Your task to perform on an android device: turn off smart reply in the gmail app Image 0: 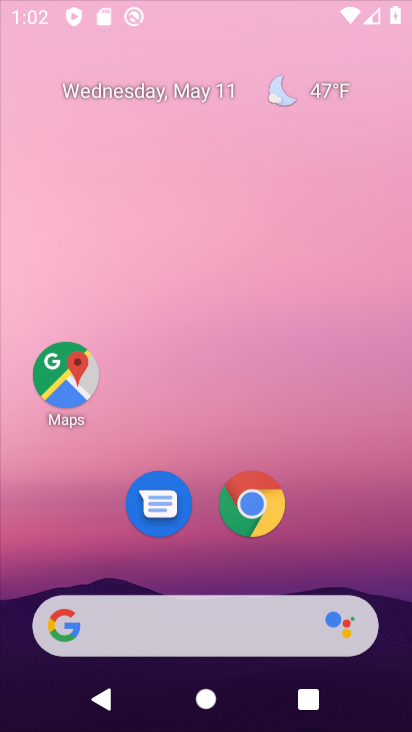
Step 0: click (250, 509)
Your task to perform on an android device: turn off smart reply in the gmail app Image 1: 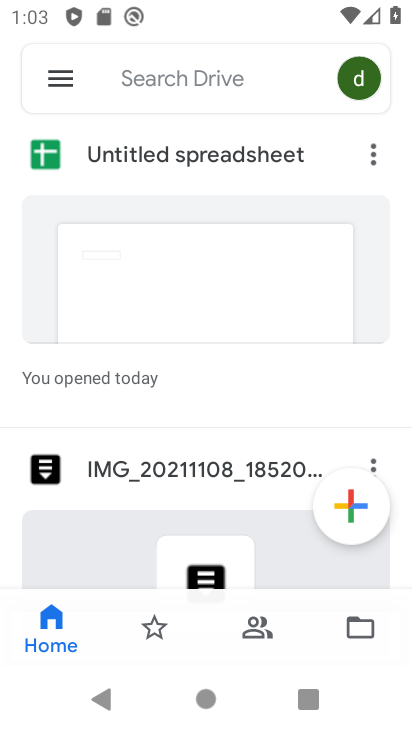
Step 1: press home button
Your task to perform on an android device: turn off smart reply in the gmail app Image 2: 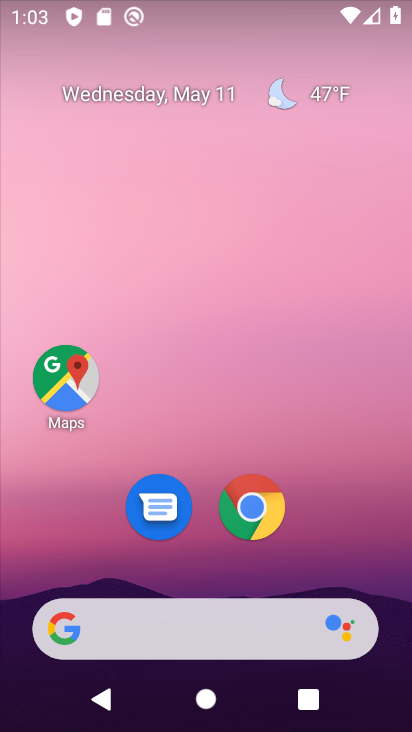
Step 2: drag from (327, 529) to (155, 15)
Your task to perform on an android device: turn off smart reply in the gmail app Image 3: 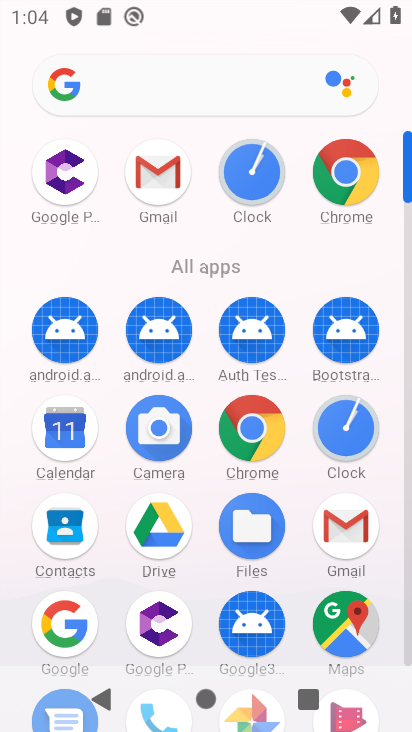
Step 3: click (153, 174)
Your task to perform on an android device: turn off smart reply in the gmail app Image 4: 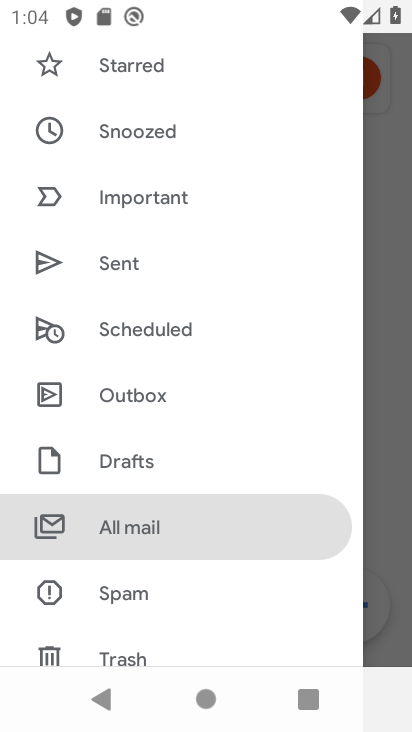
Step 4: drag from (192, 533) to (138, 255)
Your task to perform on an android device: turn off smart reply in the gmail app Image 5: 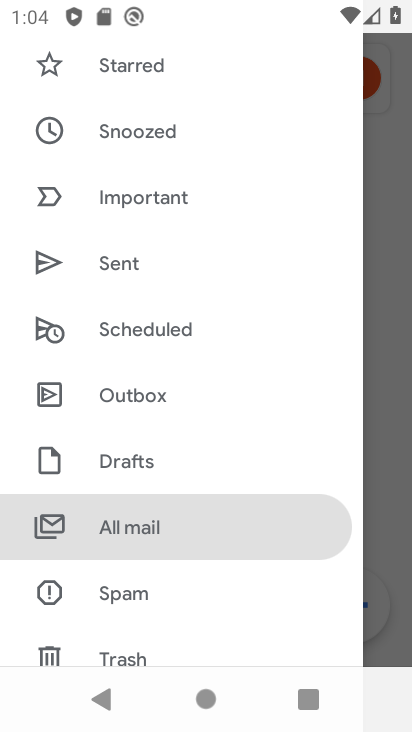
Step 5: drag from (203, 578) to (203, 286)
Your task to perform on an android device: turn off smart reply in the gmail app Image 6: 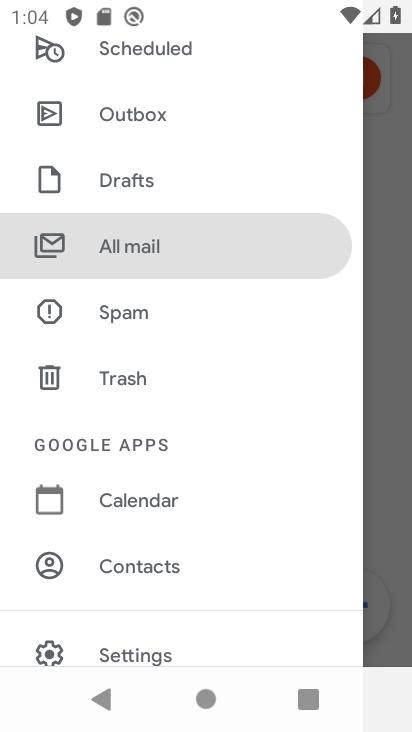
Step 6: drag from (200, 573) to (164, 368)
Your task to perform on an android device: turn off smart reply in the gmail app Image 7: 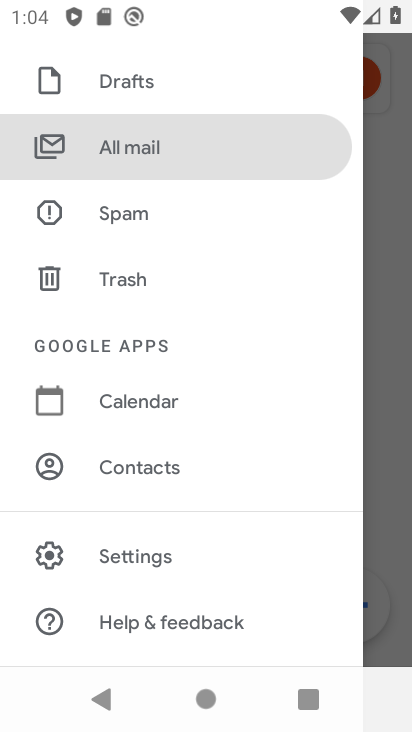
Step 7: click (117, 550)
Your task to perform on an android device: turn off smart reply in the gmail app Image 8: 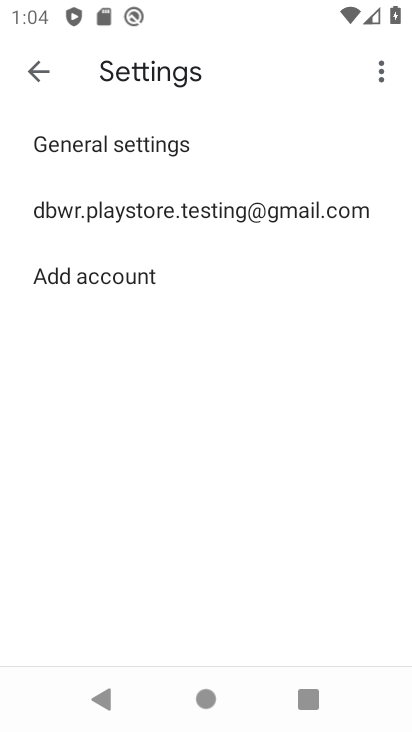
Step 8: click (119, 146)
Your task to perform on an android device: turn off smart reply in the gmail app Image 9: 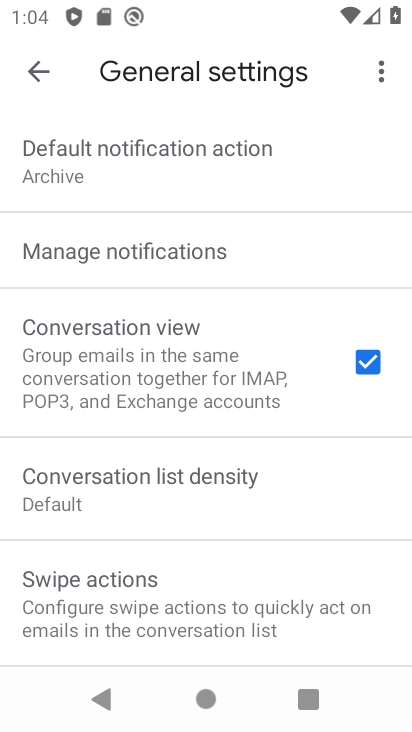
Step 9: drag from (255, 505) to (225, 208)
Your task to perform on an android device: turn off smart reply in the gmail app Image 10: 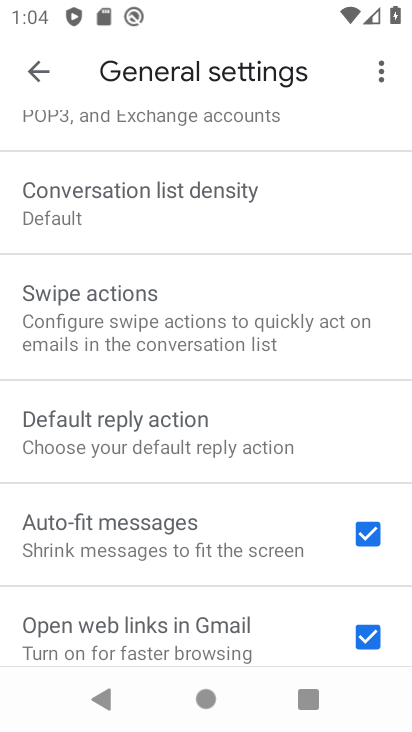
Step 10: drag from (271, 519) to (214, 198)
Your task to perform on an android device: turn off smart reply in the gmail app Image 11: 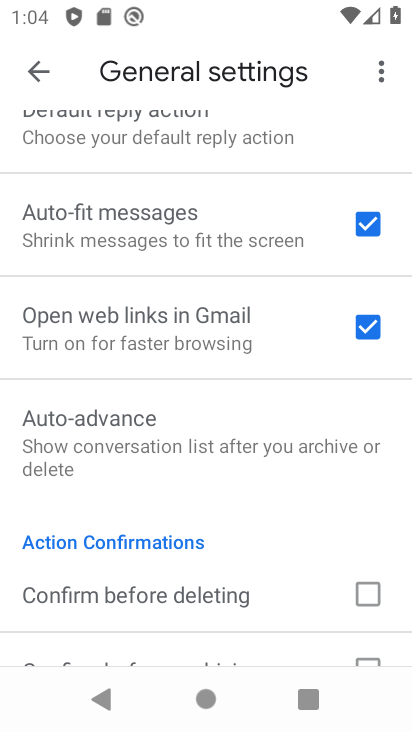
Step 11: click (35, 68)
Your task to perform on an android device: turn off smart reply in the gmail app Image 12: 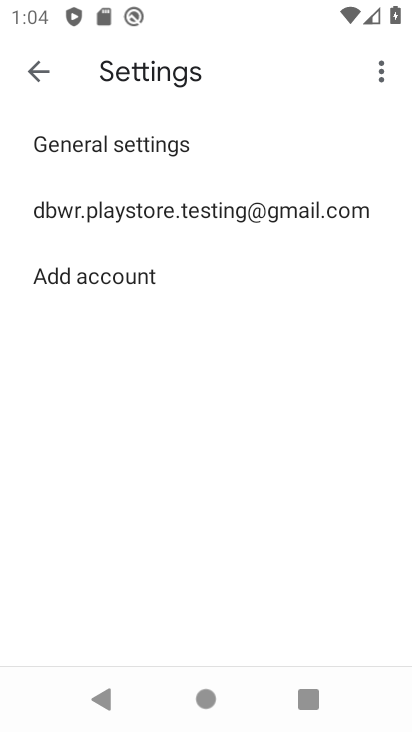
Step 12: click (98, 205)
Your task to perform on an android device: turn off smart reply in the gmail app Image 13: 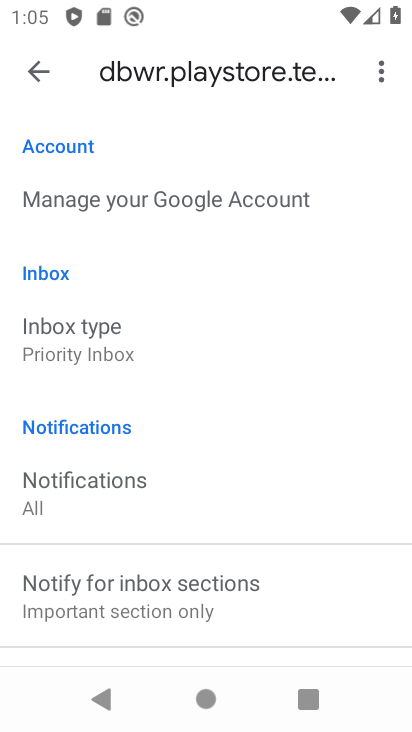
Step 13: drag from (228, 488) to (188, 69)
Your task to perform on an android device: turn off smart reply in the gmail app Image 14: 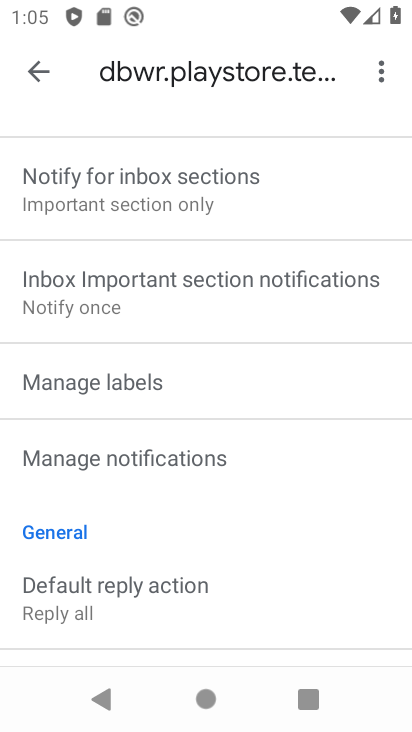
Step 14: drag from (232, 524) to (204, 198)
Your task to perform on an android device: turn off smart reply in the gmail app Image 15: 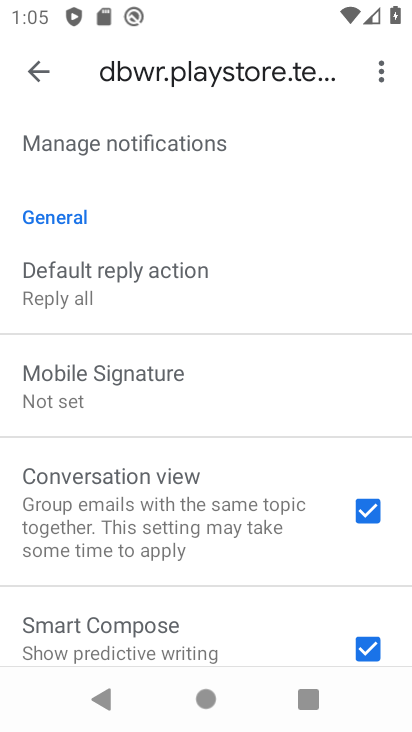
Step 15: drag from (219, 569) to (204, 299)
Your task to perform on an android device: turn off smart reply in the gmail app Image 16: 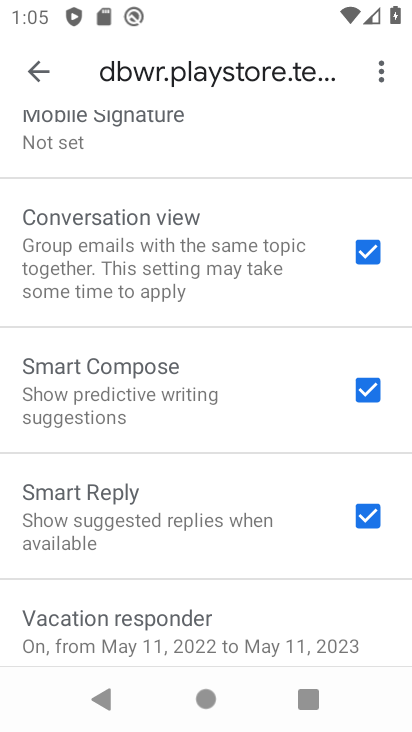
Step 16: click (364, 517)
Your task to perform on an android device: turn off smart reply in the gmail app Image 17: 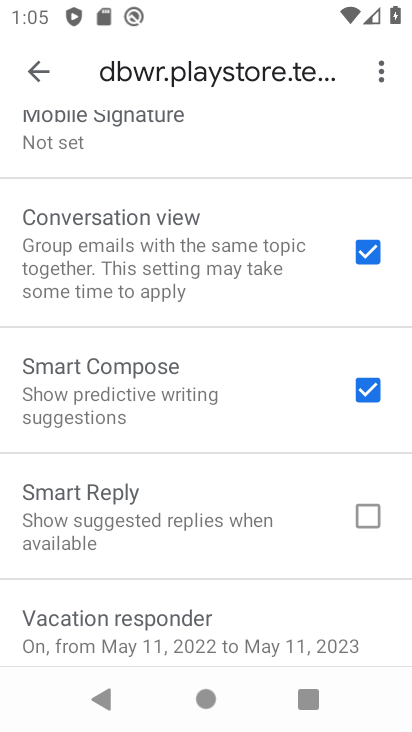
Step 17: task complete